Your task to perform on an android device: turn on wifi Image 0: 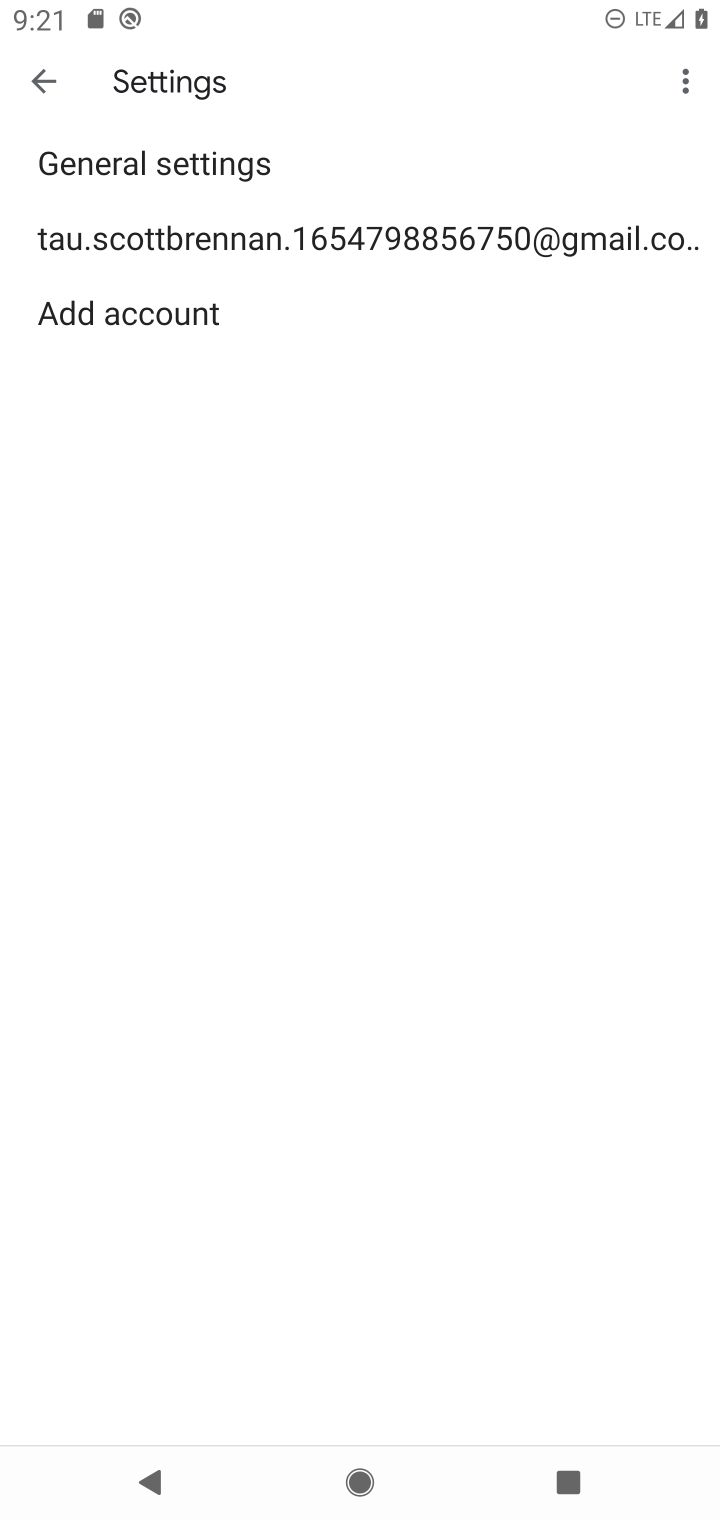
Step 0: press home button
Your task to perform on an android device: turn on wifi Image 1: 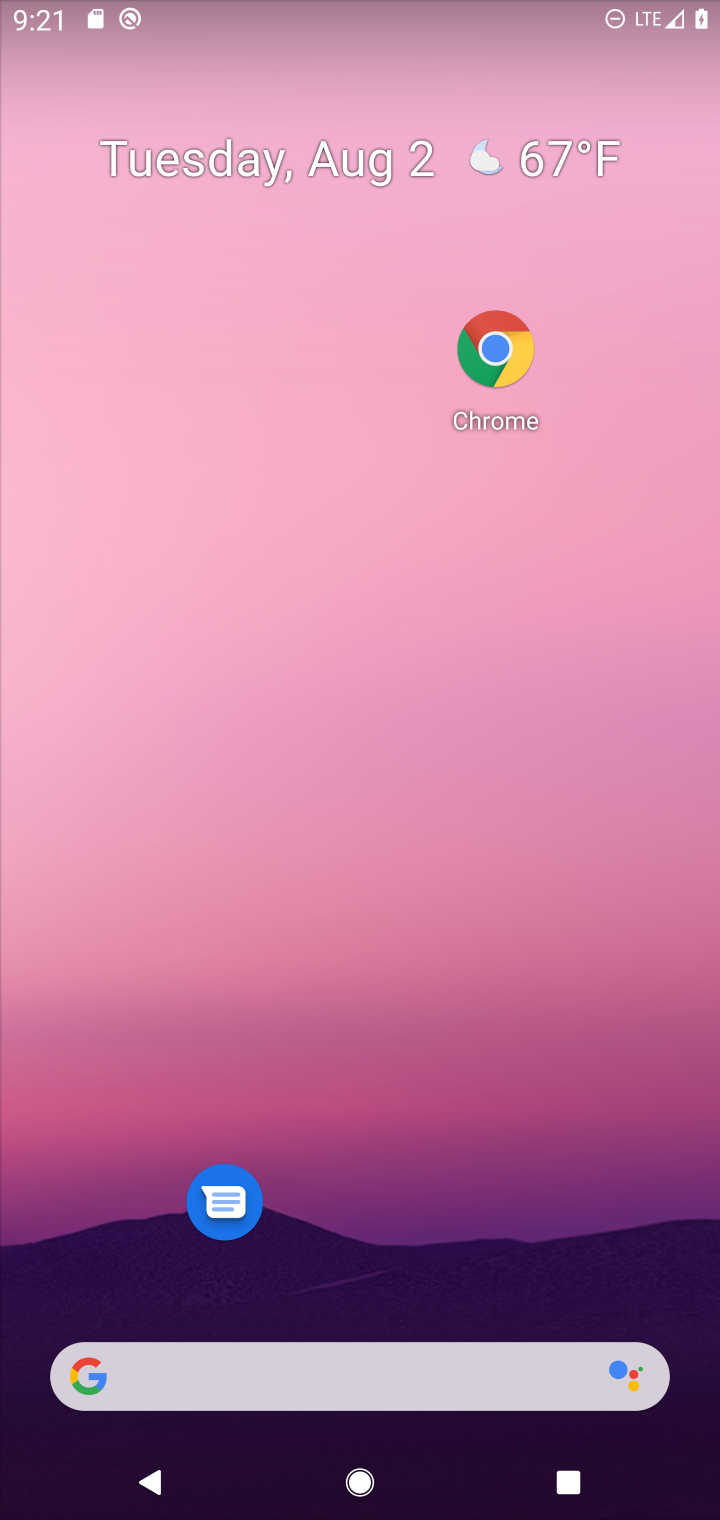
Step 1: drag from (367, 1250) to (332, 6)
Your task to perform on an android device: turn on wifi Image 2: 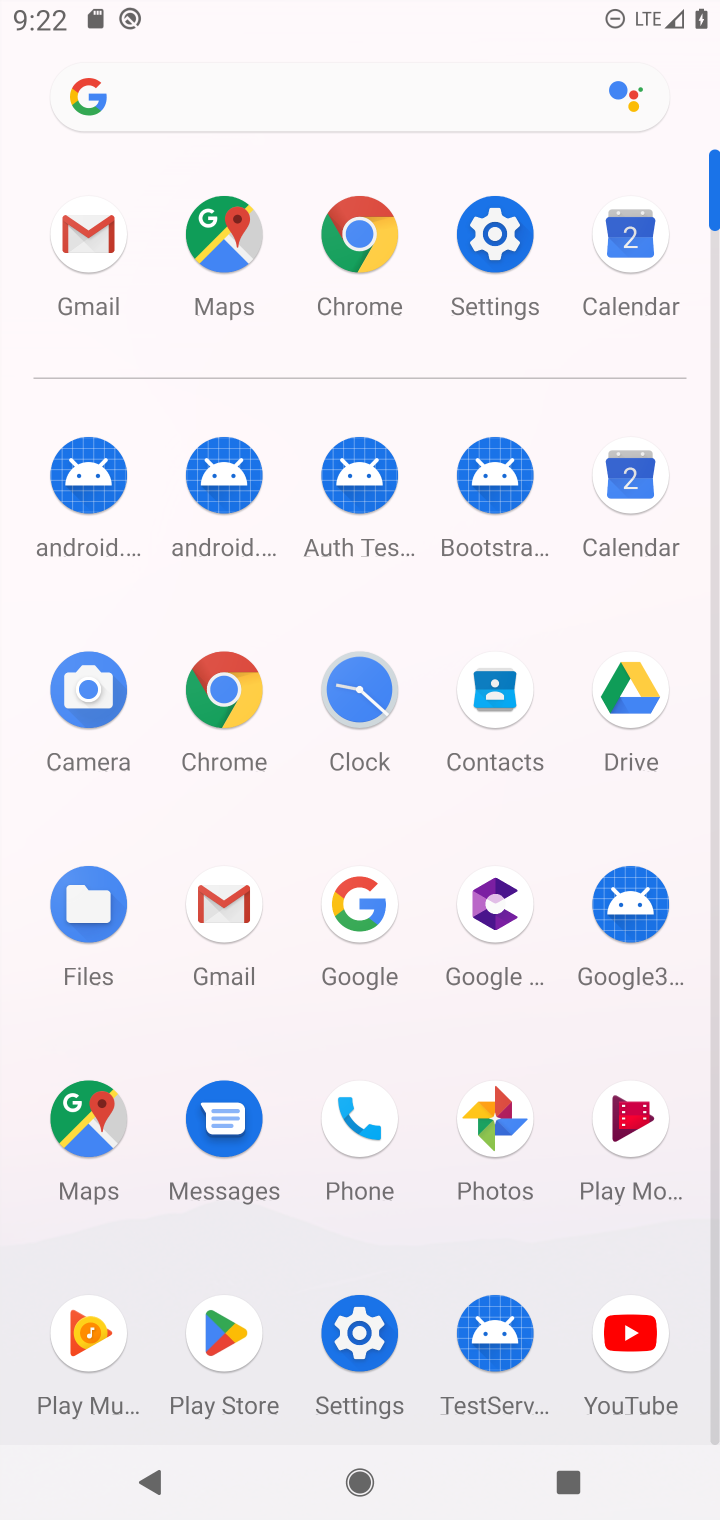
Step 2: click (488, 250)
Your task to perform on an android device: turn on wifi Image 3: 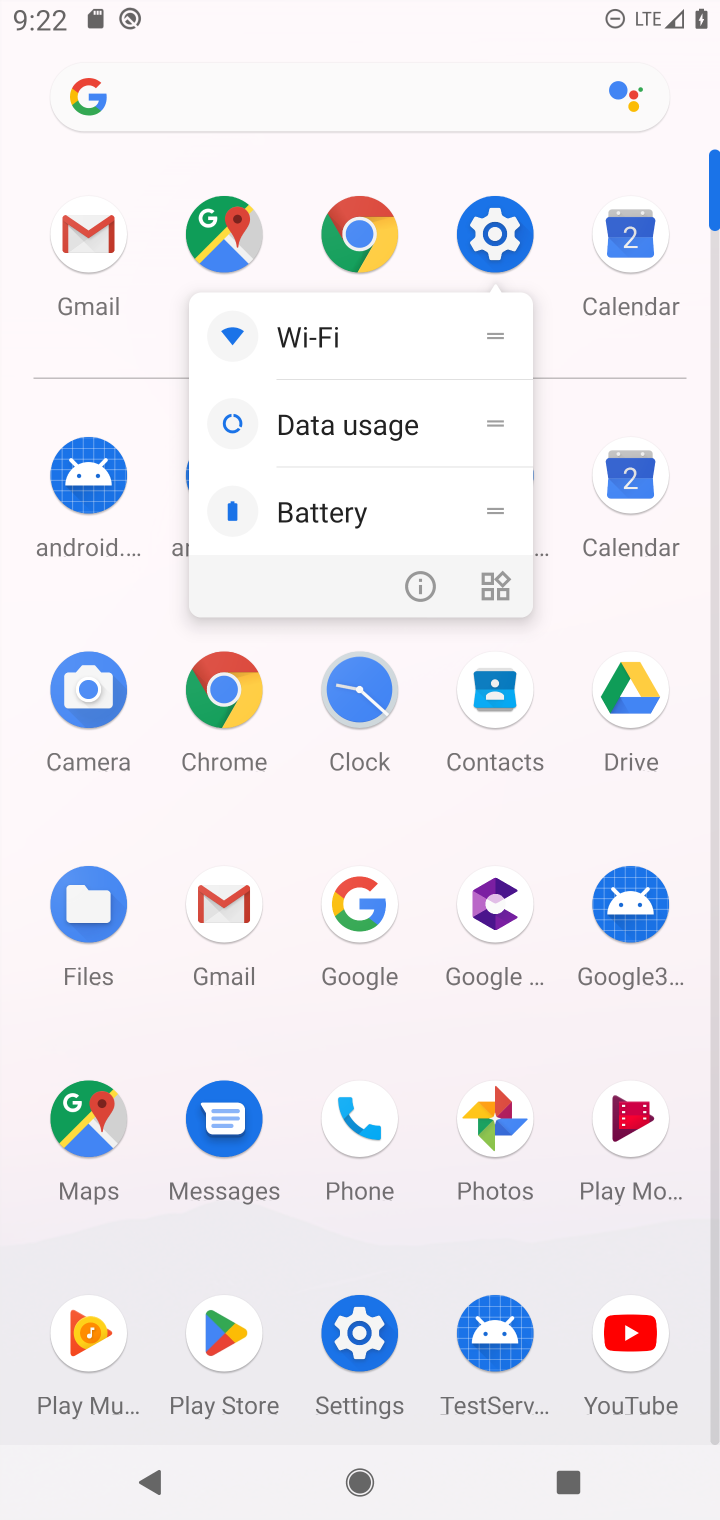
Step 3: click (503, 232)
Your task to perform on an android device: turn on wifi Image 4: 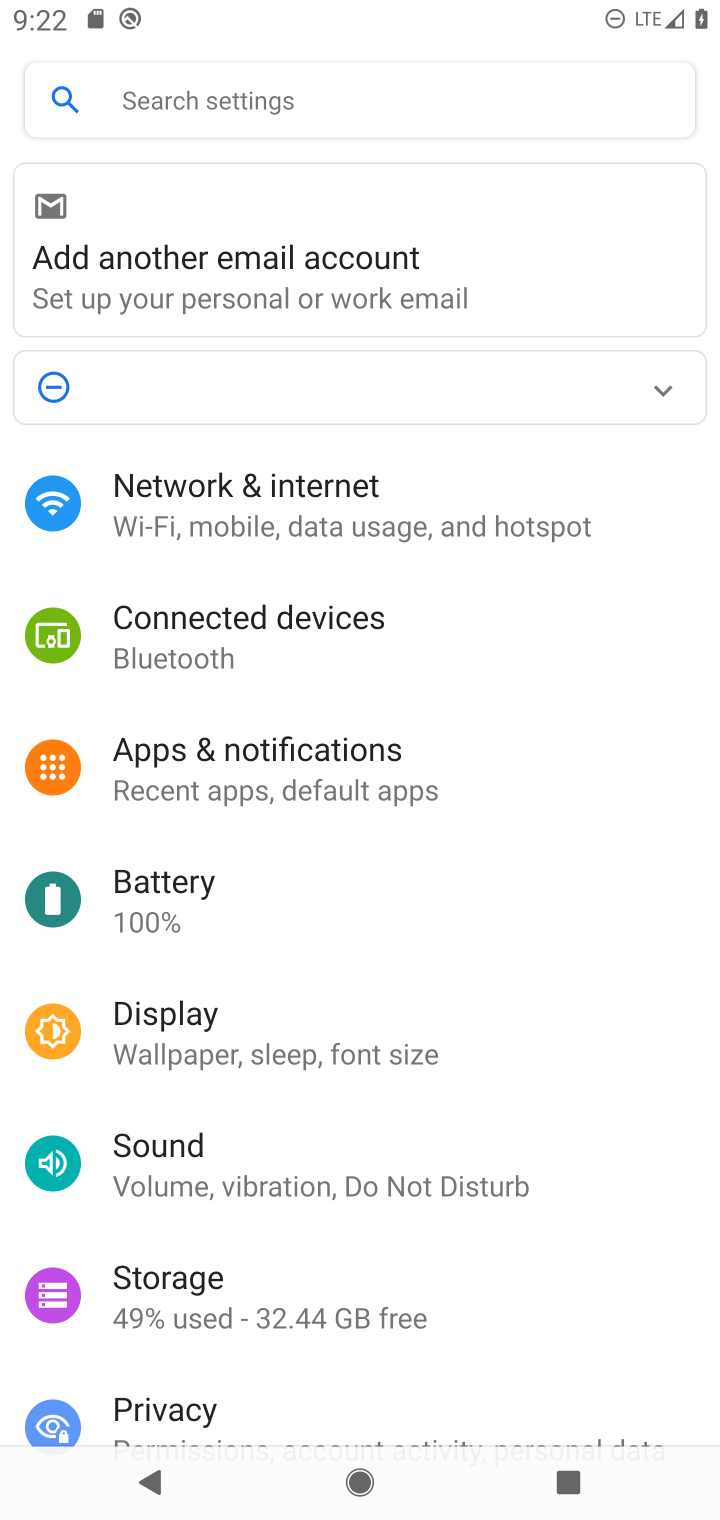
Step 4: click (273, 500)
Your task to perform on an android device: turn on wifi Image 5: 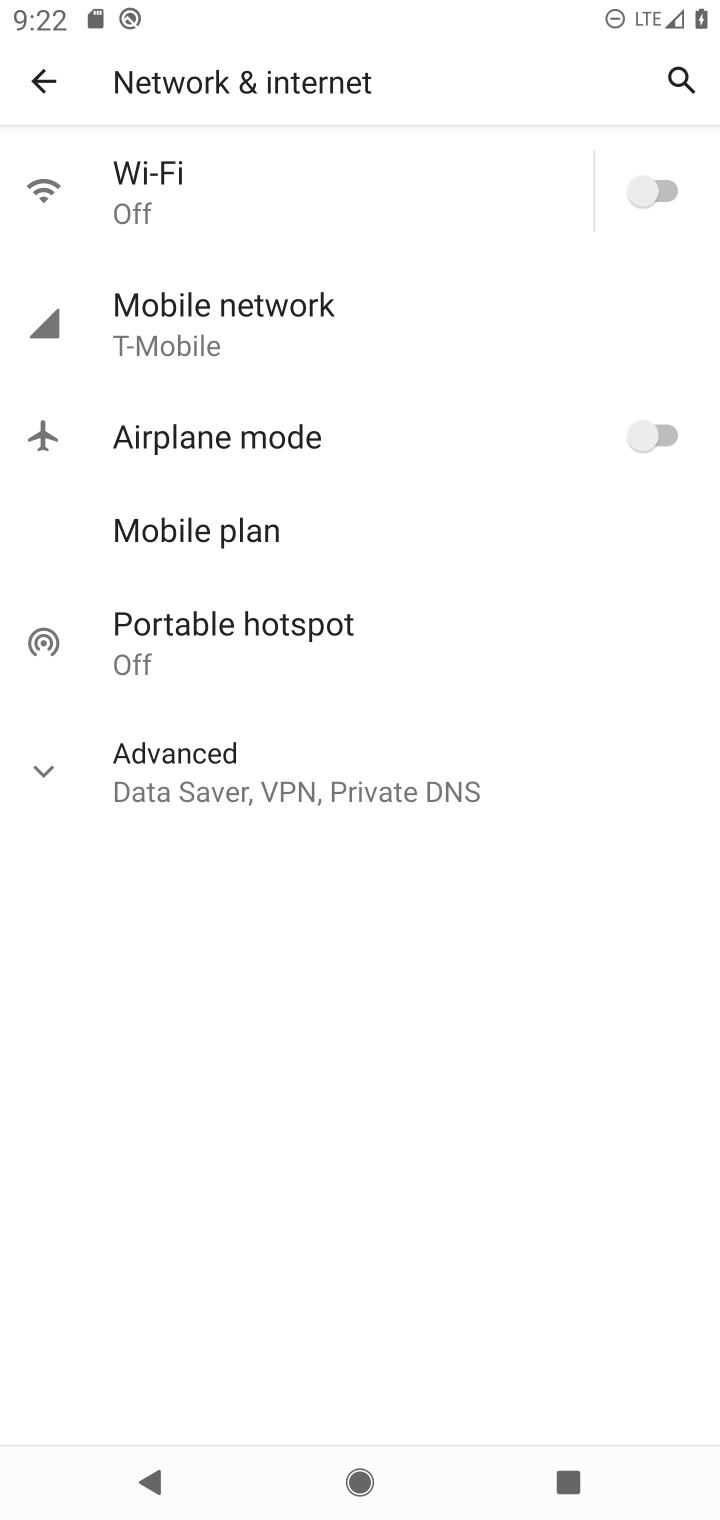
Step 5: click (647, 180)
Your task to perform on an android device: turn on wifi Image 6: 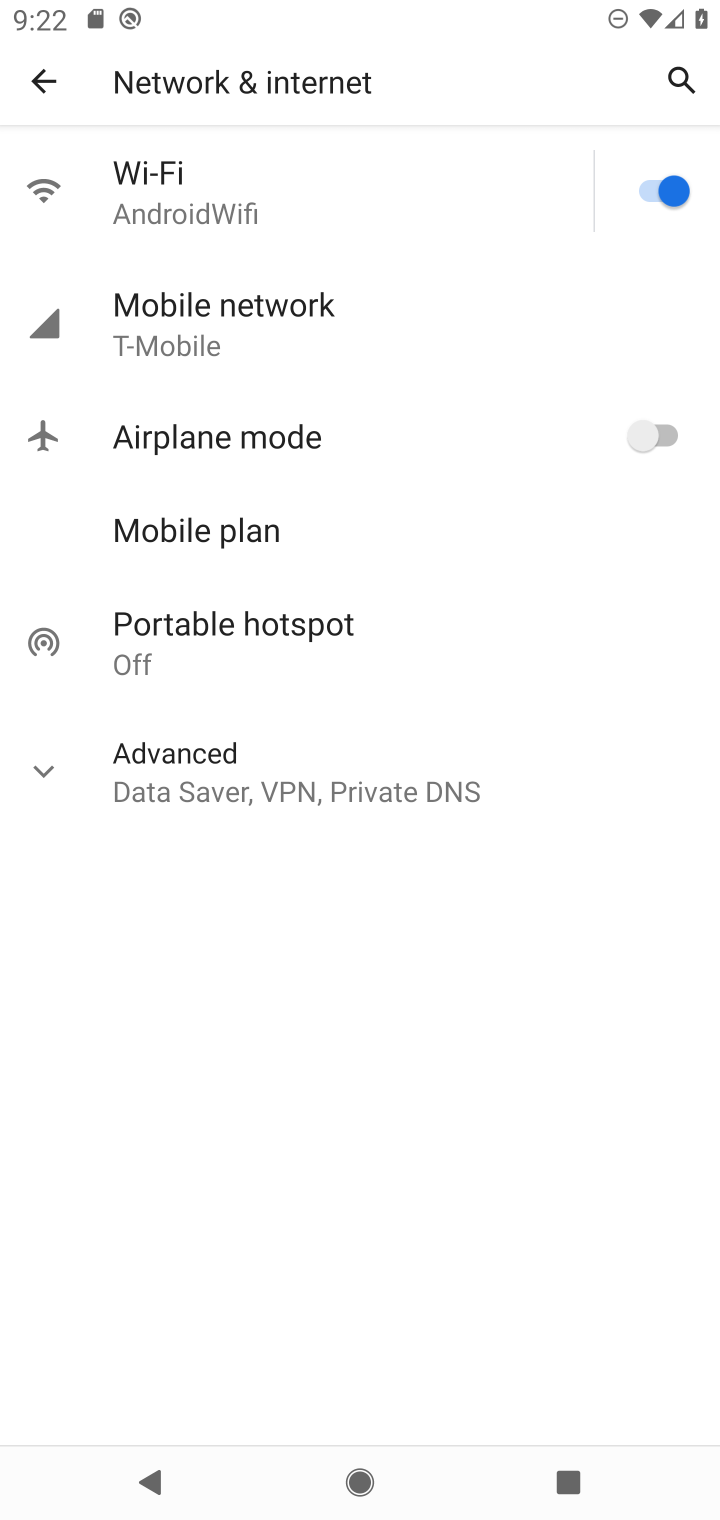
Step 6: task complete